Your task to perform on an android device: turn on wifi Image 0: 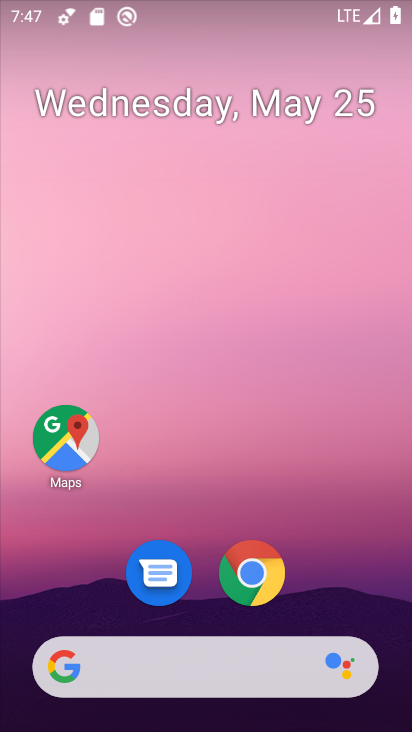
Step 0: drag from (393, 699) to (259, 242)
Your task to perform on an android device: turn on wifi Image 1: 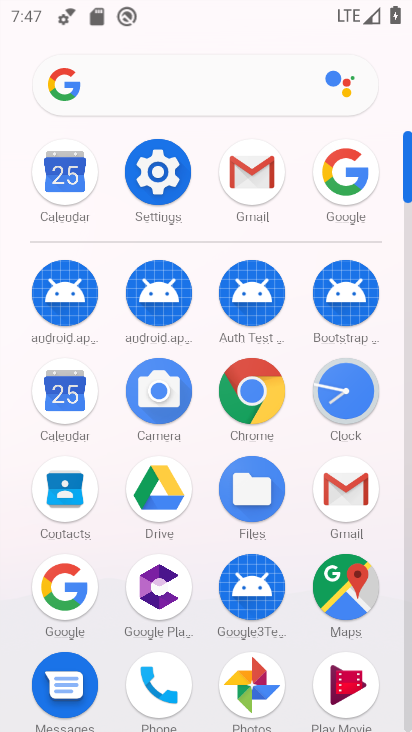
Step 1: click (168, 155)
Your task to perform on an android device: turn on wifi Image 2: 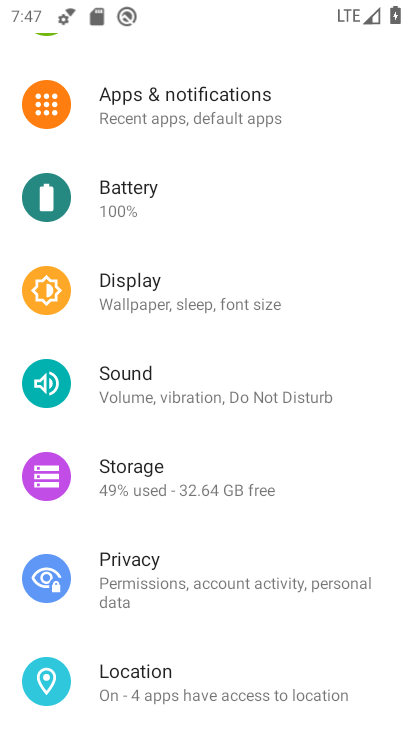
Step 2: drag from (280, 651) to (238, 337)
Your task to perform on an android device: turn on wifi Image 3: 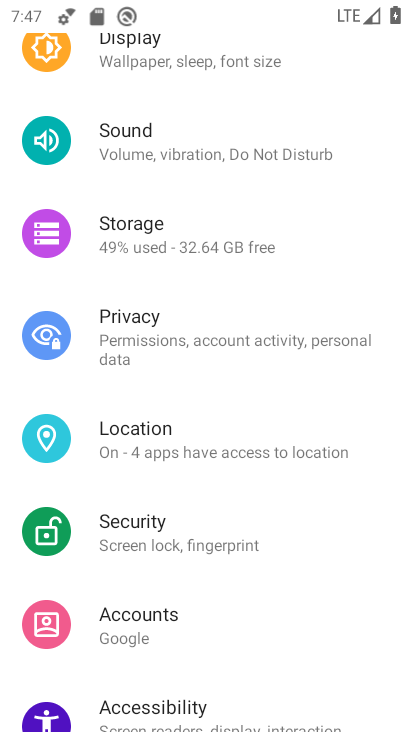
Step 3: drag from (314, 89) to (378, 526)
Your task to perform on an android device: turn on wifi Image 4: 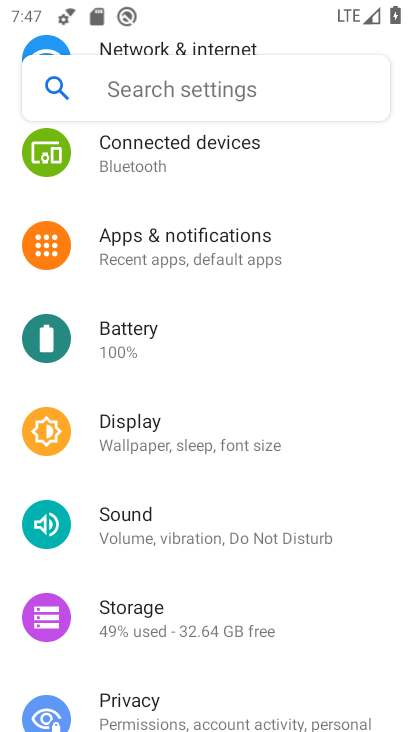
Step 4: drag from (292, 151) to (361, 625)
Your task to perform on an android device: turn on wifi Image 5: 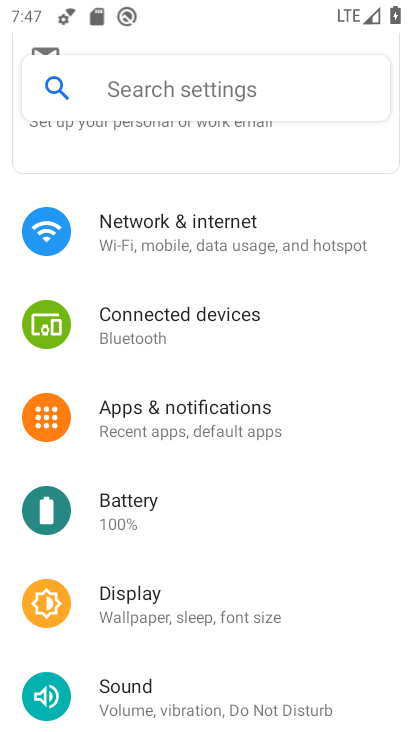
Step 5: click (157, 239)
Your task to perform on an android device: turn on wifi Image 6: 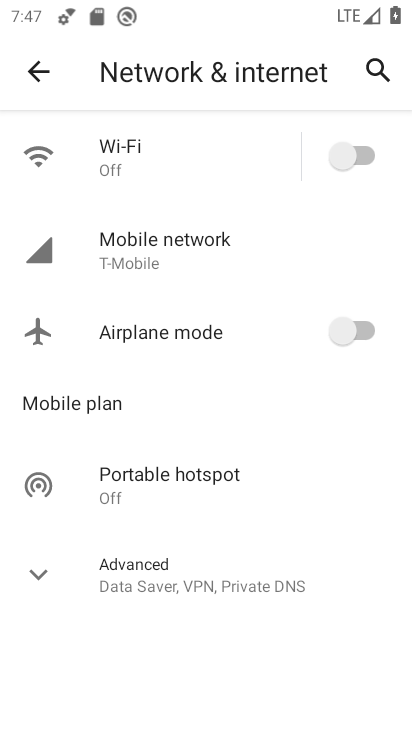
Step 6: click (359, 155)
Your task to perform on an android device: turn on wifi Image 7: 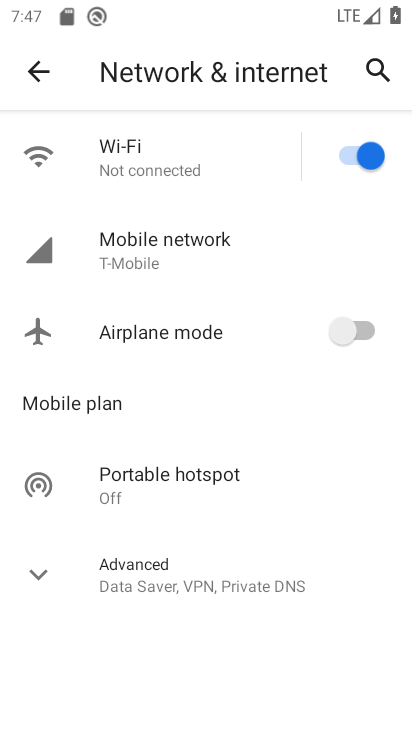
Step 7: task complete